Your task to perform on an android device: turn on priority inbox in the gmail app Image 0: 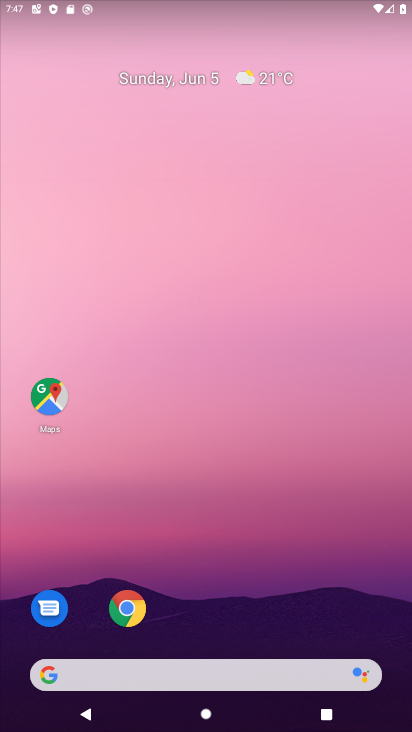
Step 0: drag from (218, 648) to (258, 155)
Your task to perform on an android device: turn on priority inbox in the gmail app Image 1: 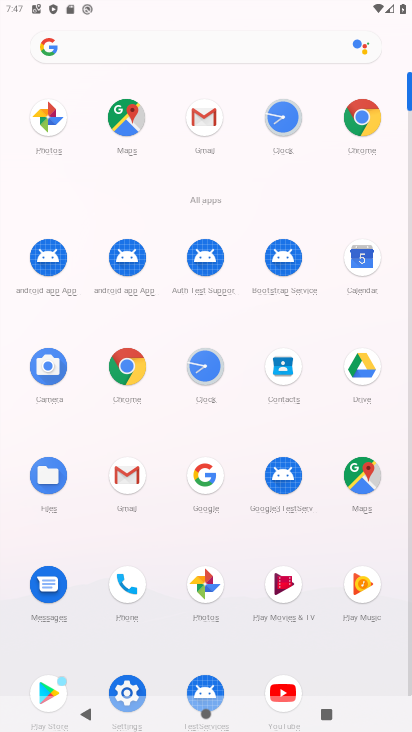
Step 1: click (128, 483)
Your task to perform on an android device: turn on priority inbox in the gmail app Image 2: 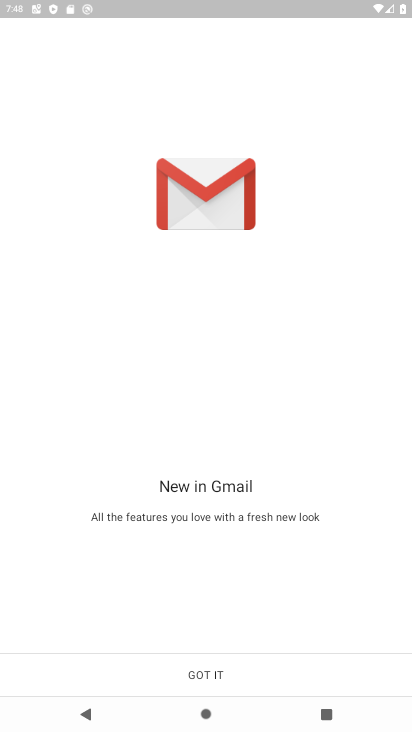
Step 2: click (247, 672)
Your task to perform on an android device: turn on priority inbox in the gmail app Image 3: 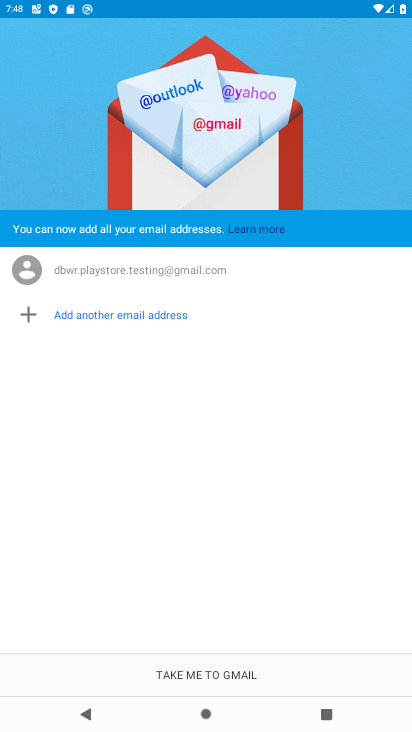
Step 3: click (247, 672)
Your task to perform on an android device: turn on priority inbox in the gmail app Image 4: 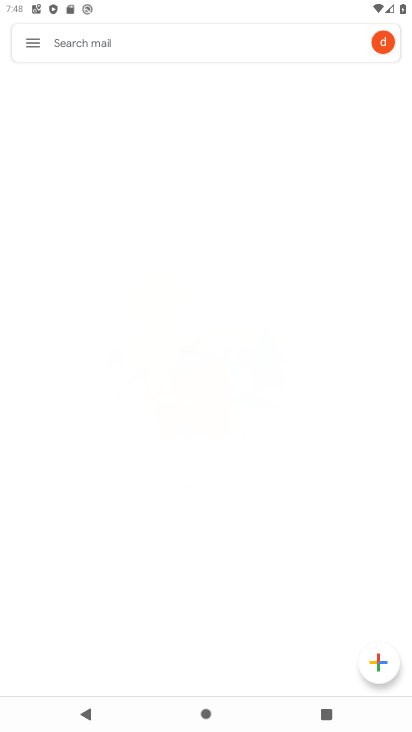
Step 4: click (43, 55)
Your task to perform on an android device: turn on priority inbox in the gmail app Image 5: 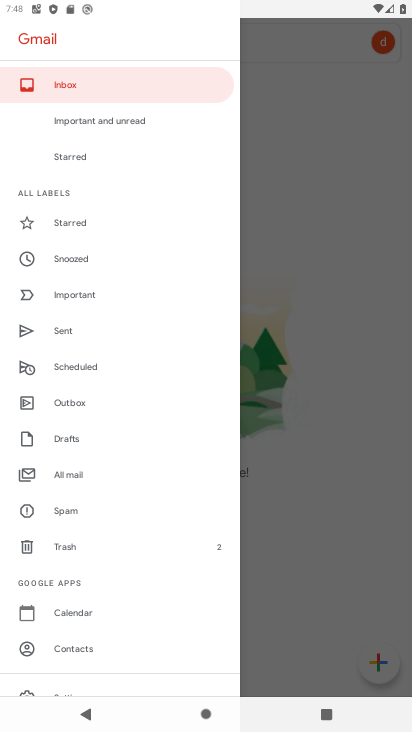
Step 5: drag from (94, 638) to (234, 130)
Your task to perform on an android device: turn on priority inbox in the gmail app Image 6: 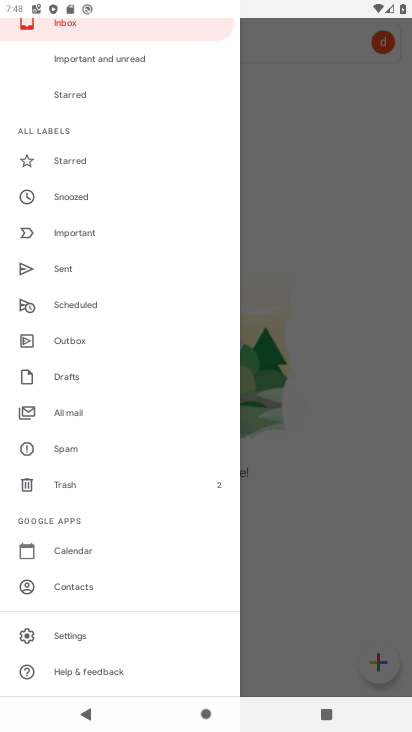
Step 6: click (80, 640)
Your task to perform on an android device: turn on priority inbox in the gmail app Image 7: 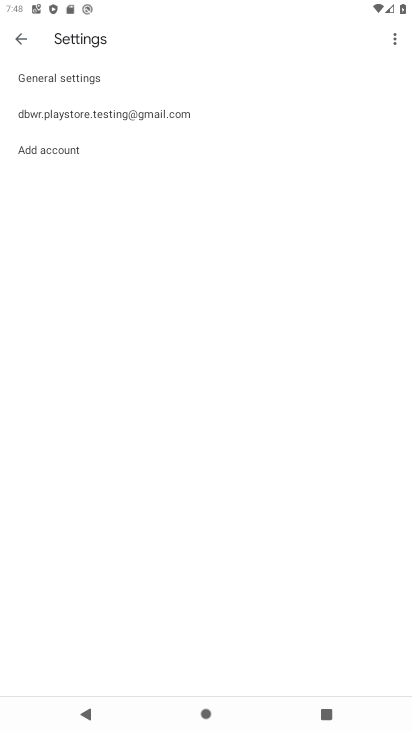
Step 7: click (81, 124)
Your task to perform on an android device: turn on priority inbox in the gmail app Image 8: 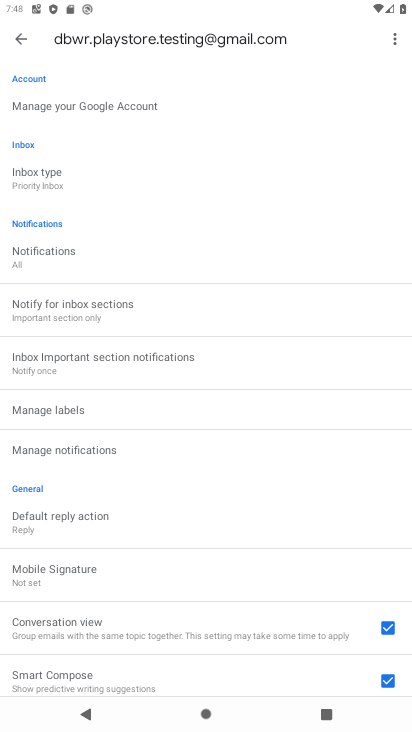
Step 8: click (67, 189)
Your task to perform on an android device: turn on priority inbox in the gmail app Image 9: 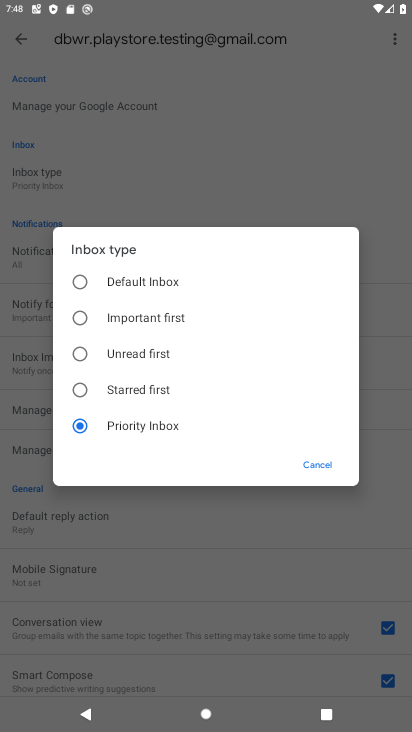
Step 9: task complete